Your task to perform on an android device: Play the last video I watched on Youtube Image 0: 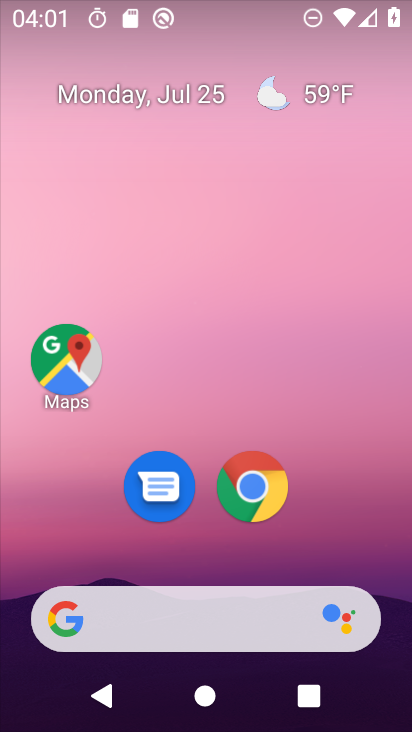
Step 0: drag from (145, 575) to (188, 46)
Your task to perform on an android device: Play the last video I watched on Youtube Image 1: 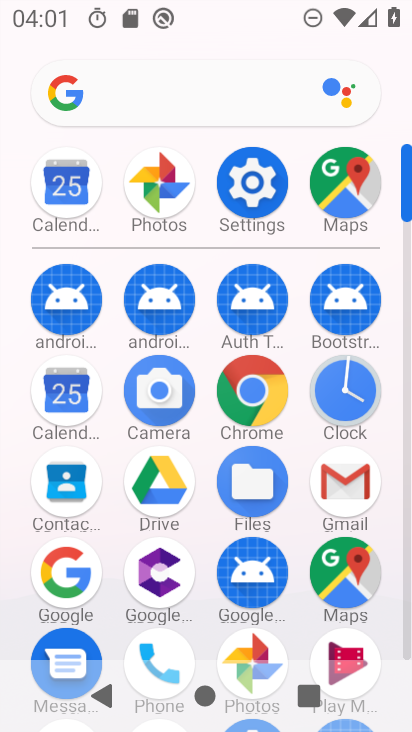
Step 1: drag from (198, 602) to (217, 7)
Your task to perform on an android device: Play the last video I watched on Youtube Image 2: 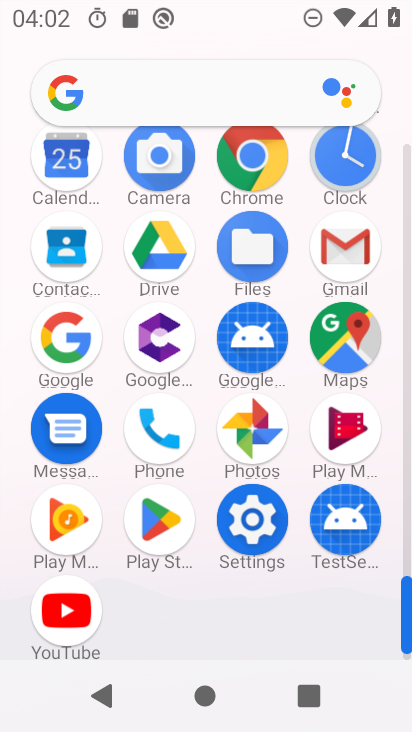
Step 2: click (55, 600)
Your task to perform on an android device: Play the last video I watched on Youtube Image 3: 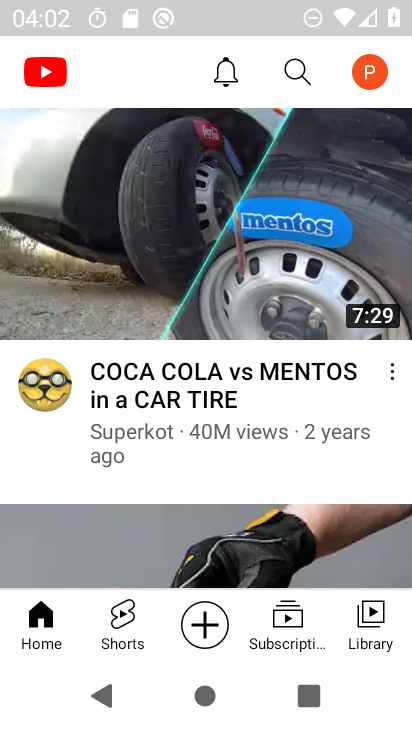
Step 3: click (377, 614)
Your task to perform on an android device: Play the last video I watched on Youtube Image 4: 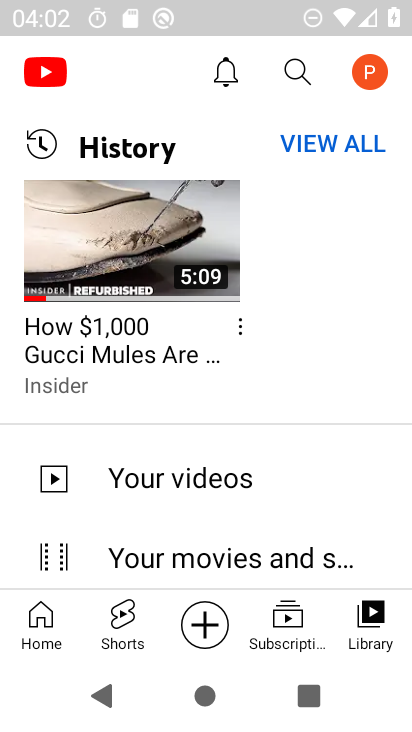
Step 4: click (81, 233)
Your task to perform on an android device: Play the last video I watched on Youtube Image 5: 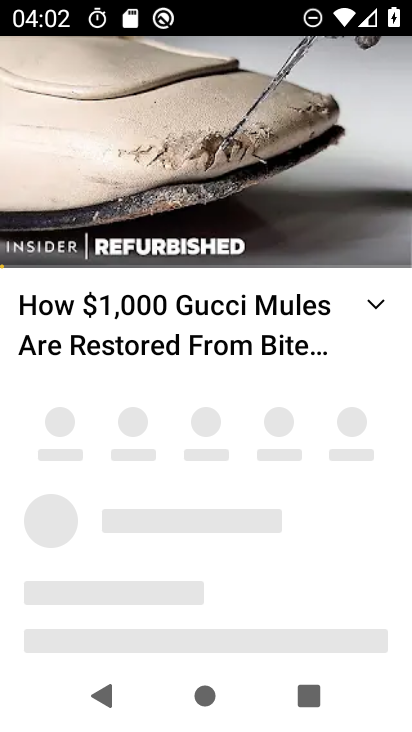
Step 5: click (174, 152)
Your task to perform on an android device: Play the last video I watched on Youtube Image 6: 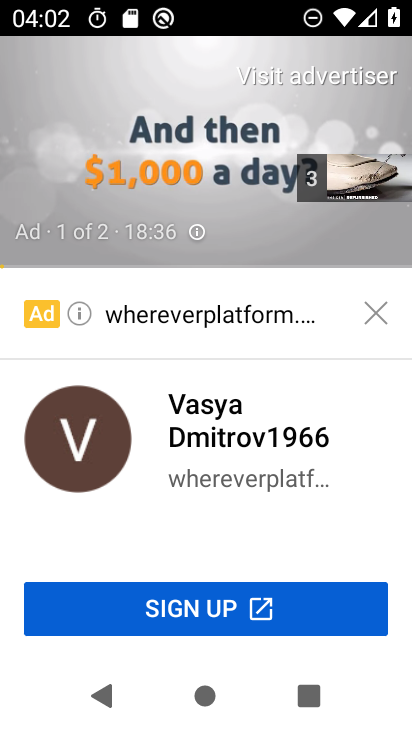
Step 6: click (183, 154)
Your task to perform on an android device: Play the last video I watched on Youtube Image 7: 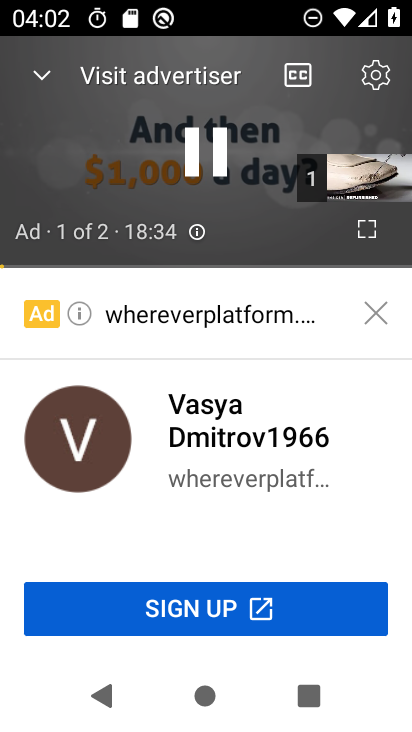
Step 7: click (197, 150)
Your task to perform on an android device: Play the last video I watched on Youtube Image 8: 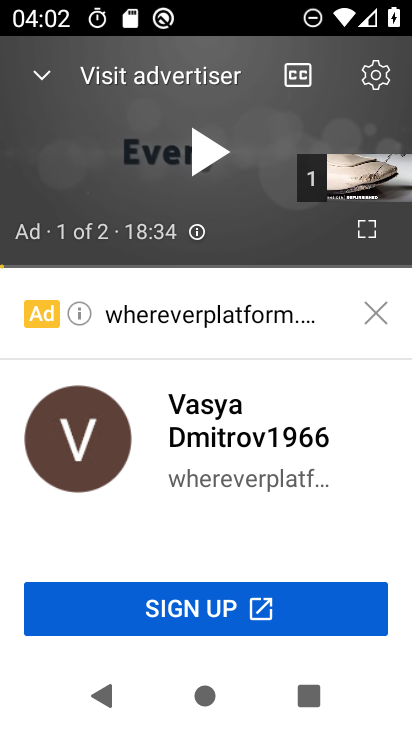
Step 8: task complete